Your task to perform on an android device: Check the settings for the Amazon Music app Image 0: 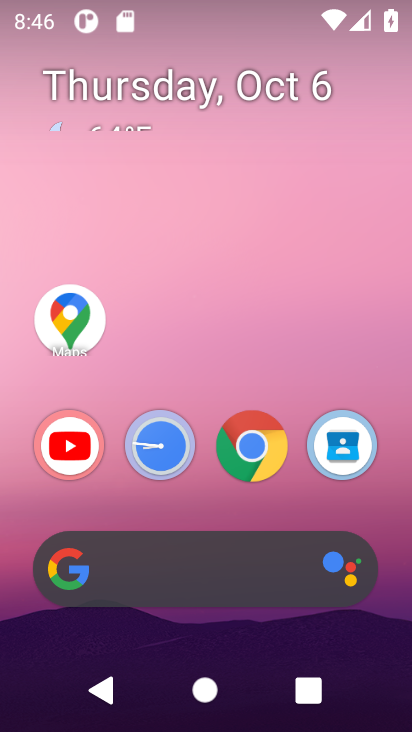
Step 0: task impossible